Your task to perform on an android device: add a label to a message in the gmail app Image 0: 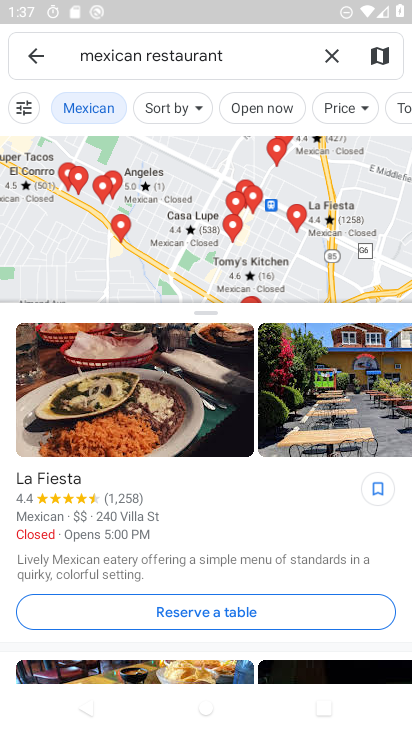
Step 0: press home button
Your task to perform on an android device: add a label to a message in the gmail app Image 1: 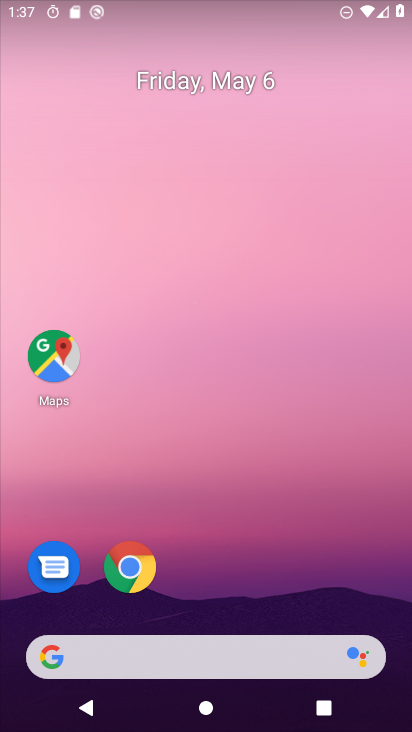
Step 1: drag from (305, 583) to (278, 73)
Your task to perform on an android device: add a label to a message in the gmail app Image 2: 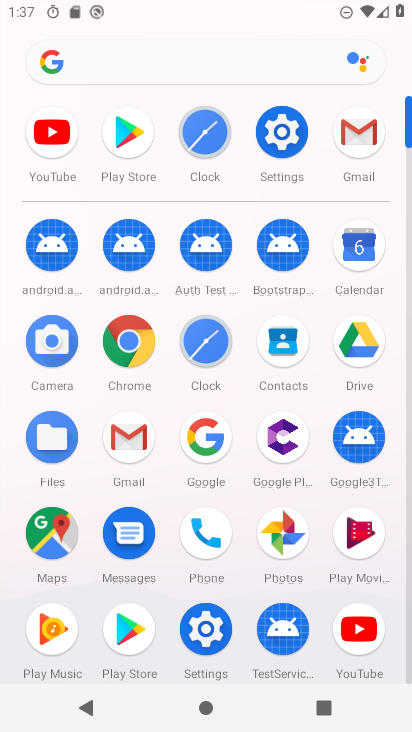
Step 2: click (354, 134)
Your task to perform on an android device: add a label to a message in the gmail app Image 3: 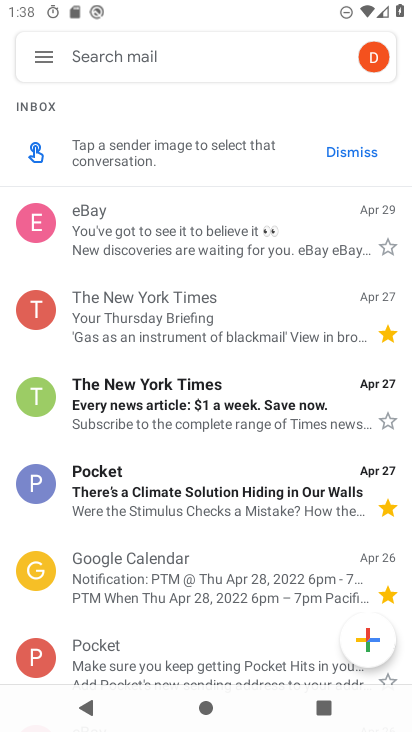
Step 3: click (39, 55)
Your task to perform on an android device: add a label to a message in the gmail app Image 4: 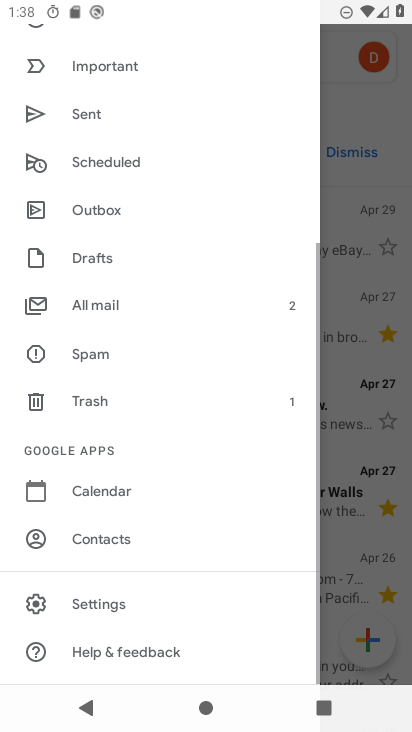
Step 4: click (94, 303)
Your task to perform on an android device: add a label to a message in the gmail app Image 5: 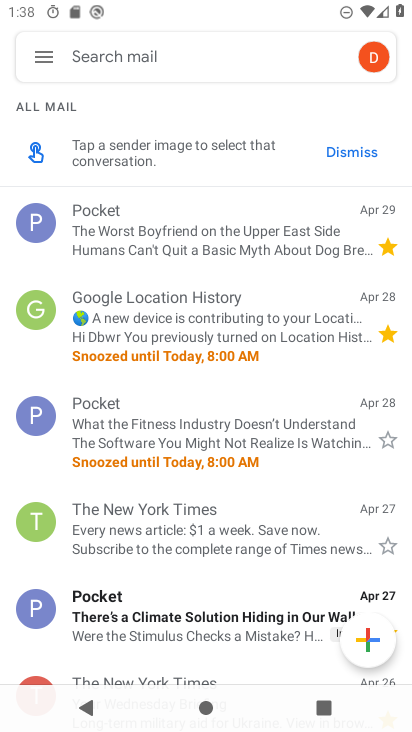
Step 5: click (201, 240)
Your task to perform on an android device: add a label to a message in the gmail app Image 6: 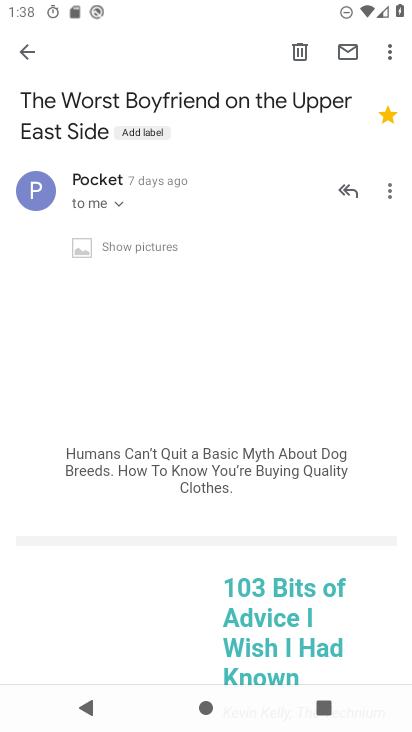
Step 6: click (135, 138)
Your task to perform on an android device: add a label to a message in the gmail app Image 7: 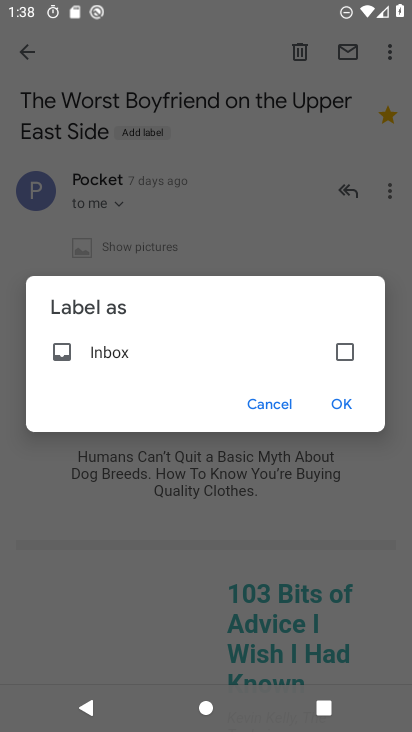
Step 7: click (340, 352)
Your task to perform on an android device: add a label to a message in the gmail app Image 8: 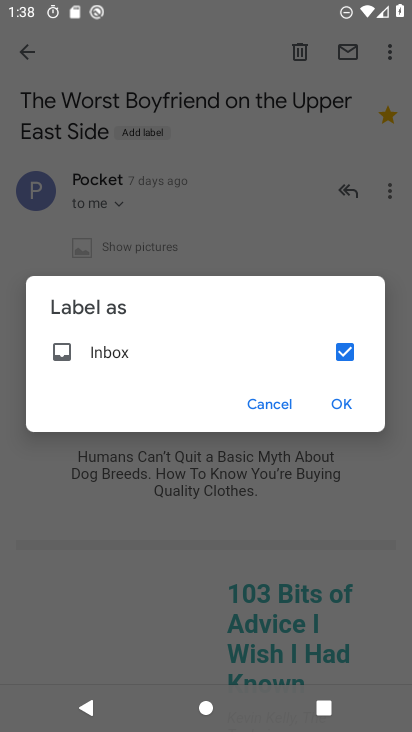
Step 8: click (337, 393)
Your task to perform on an android device: add a label to a message in the gmail app Image 9: 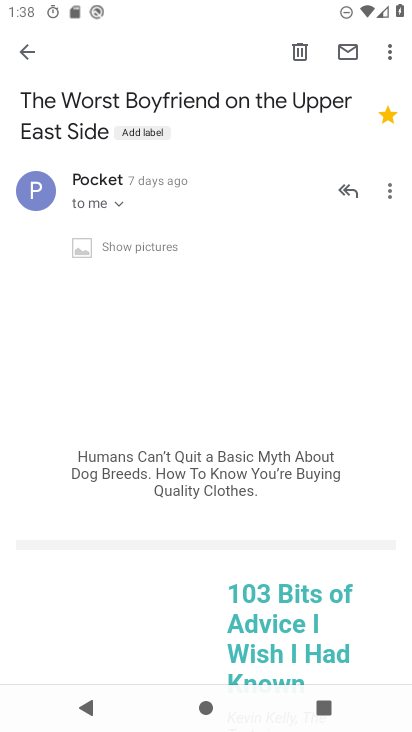
Step 9: task complete